Your task to perform on an android device: turn off picture-in-picture Image 0: 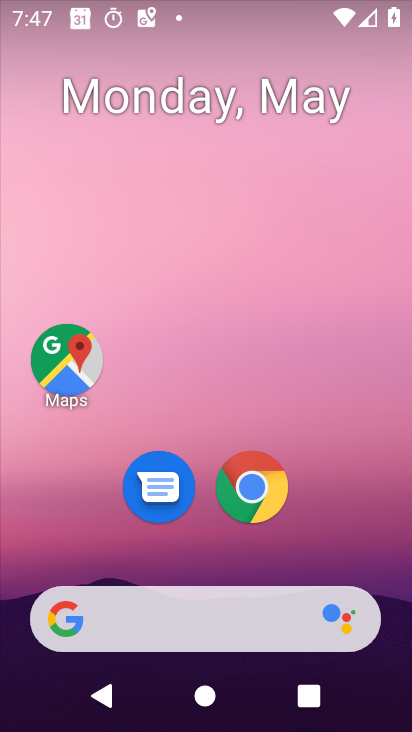
Step 0: drag from (197, 654) to (265, 118)
Your task to perform on an android device: turn off picture-in-picture Image 1: 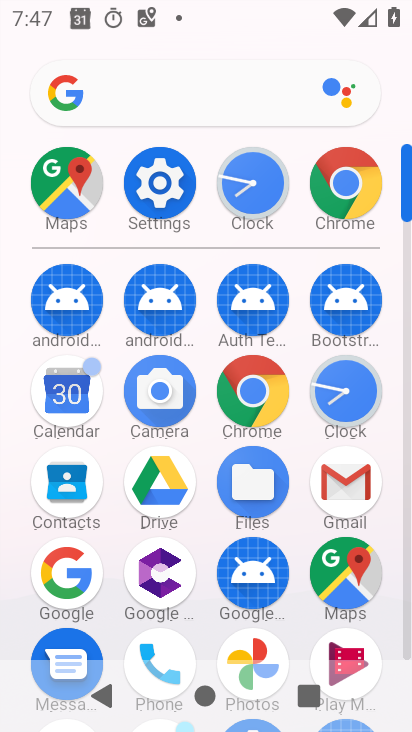
Step 1: click (168, 188)
Your task to perform on an android device: turn off picture-in-picture Image 2: 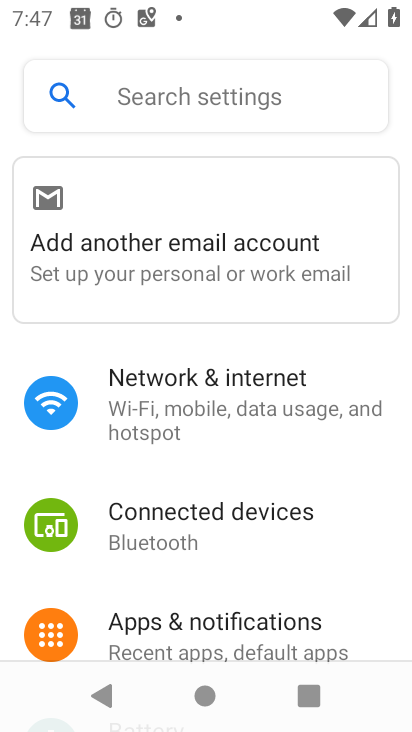
Step 2: click (174, 104)
Your task to perform on an android device: turn off picture-in-picture Image 3: 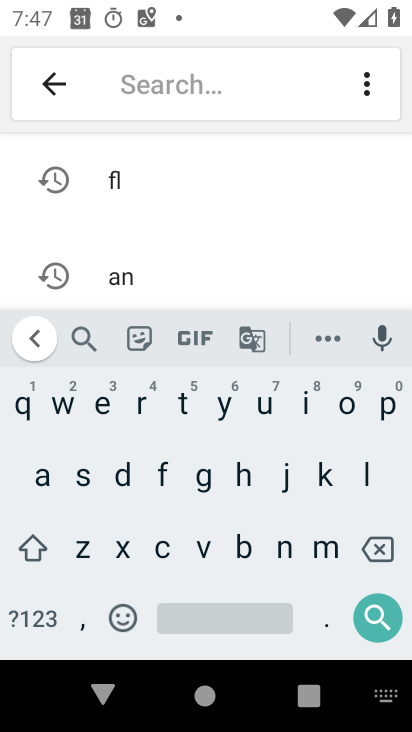
Step 3: click (386, 417)
Your task to perform on an android device: turn off picture-in-picture Image 4: 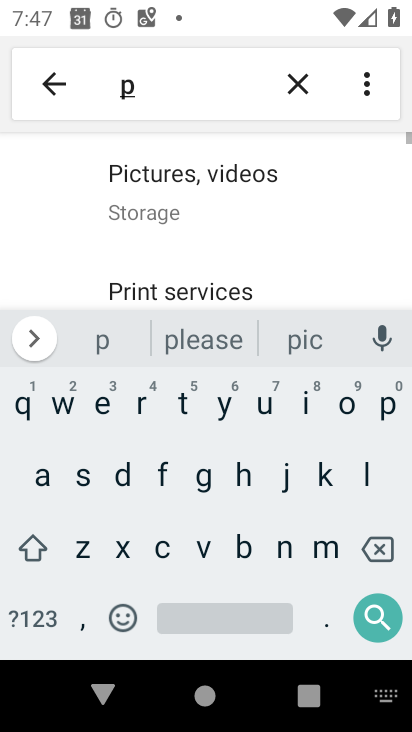
Step 4: click (305, 405)
Your task to perform on an android device: turn off picture-in-picture Image 5: 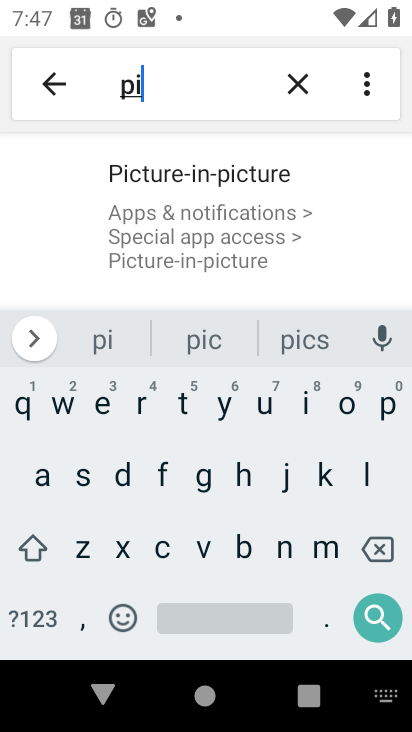
Step 5: click (192, 211)
Your task to perform on an android device: turn off picture-in-picture Image 6: 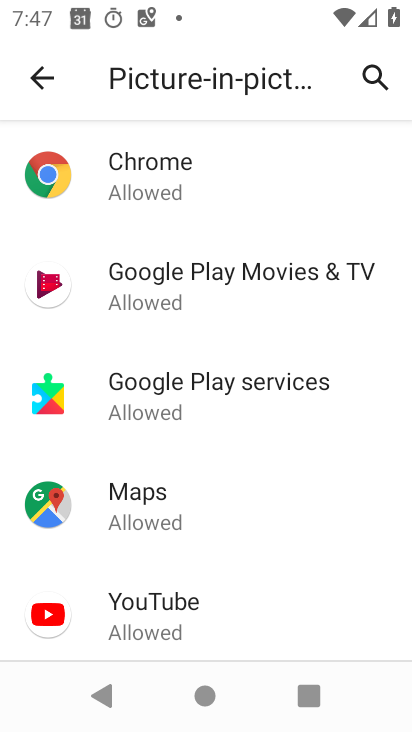
Step 6: task complete